Your task to perform on an android device: Toggle the flashlight Image 0: 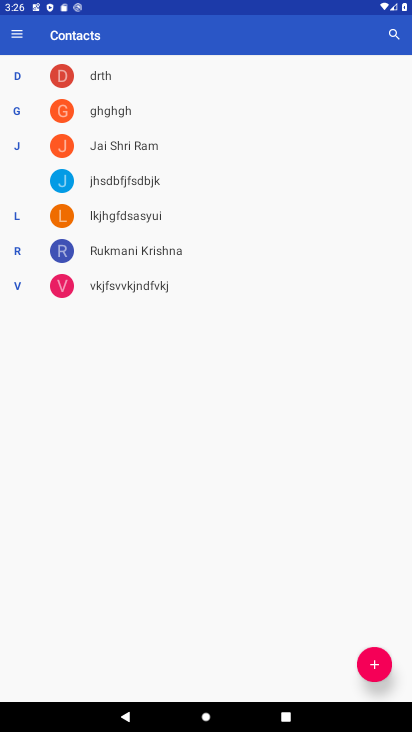
Step 0: press home button
Your task to perform on an android device: Toggle the flashlight Image 1: 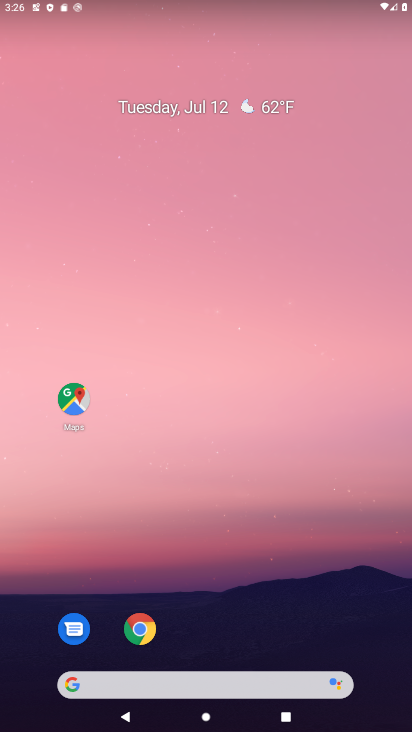
Step 1: drag from (193, 660) to (152, 10)
Your task to perform on an android device: Toggle the flashlight Image 2: 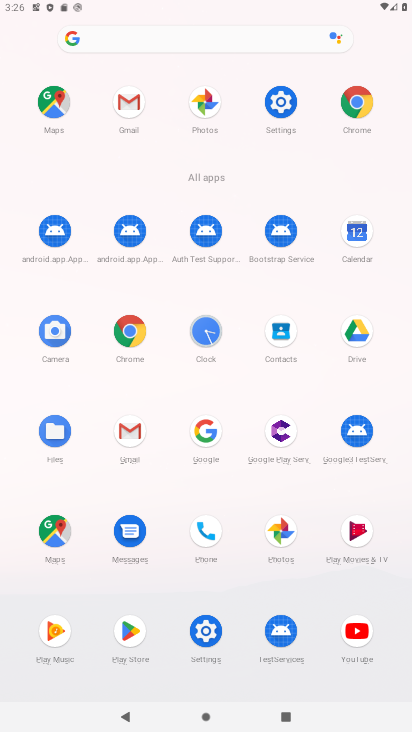
Step 2: click (207, 635)
Your task to perform on an android device: Toggle the flashlight Image 3: 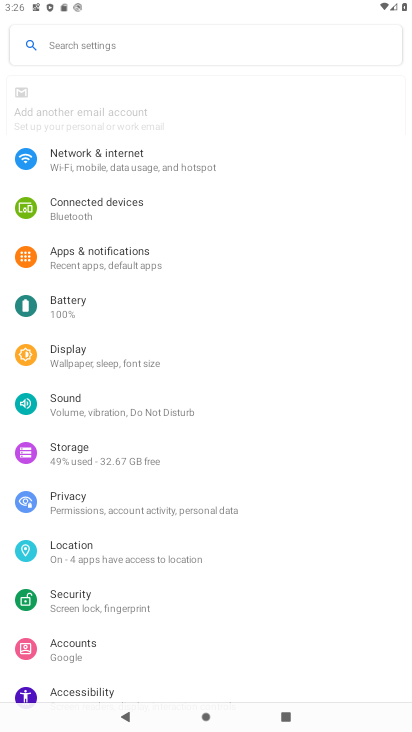
Step 3: task complete